Your task to perform on an android device: What is the recent news? Image 0: 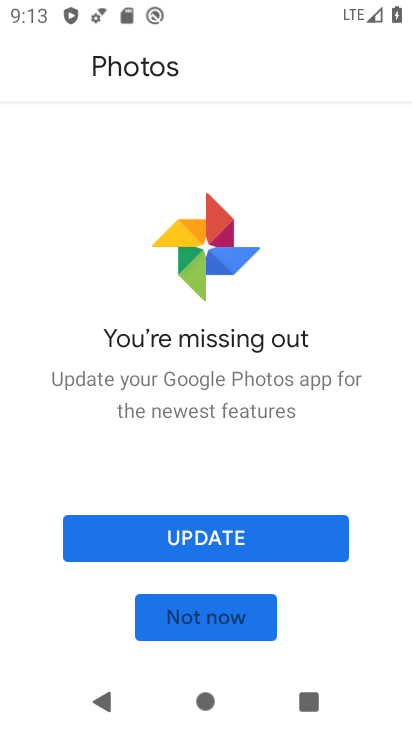
Step 0: press home button
Your task to perform on an android device: What is the recent news? Image 1: 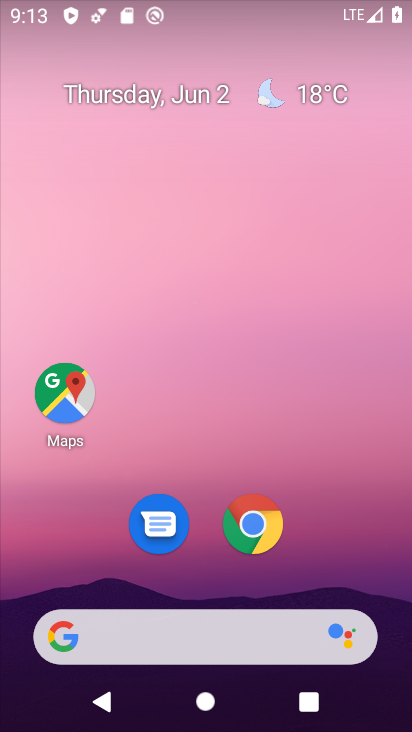
Step 1: click (219, 638)
Your task to perform on an android device: What is the recent news? Image 2: 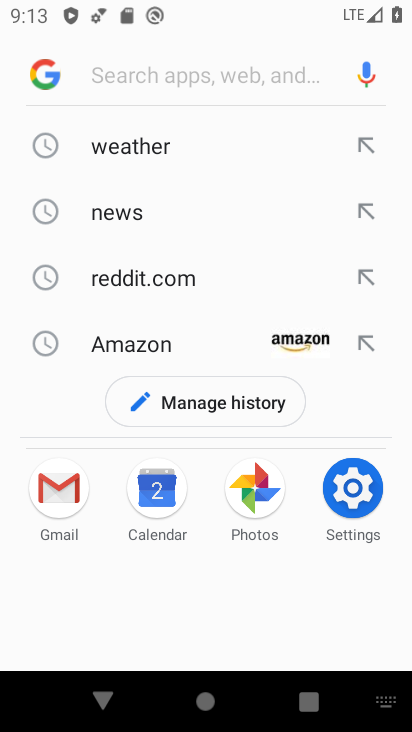
Step 2: click (92, 209)
Your task to perform on an android device: What is the recent news? Image 3: 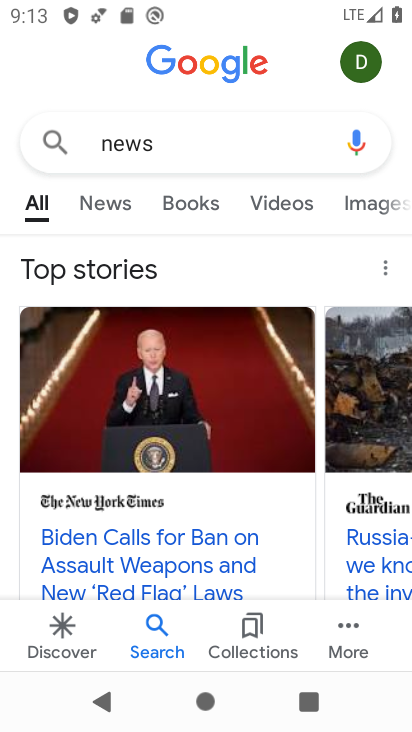
Step 3: click (119, 197)
Your task to perform on an android device: What is the recent news? Image 4: 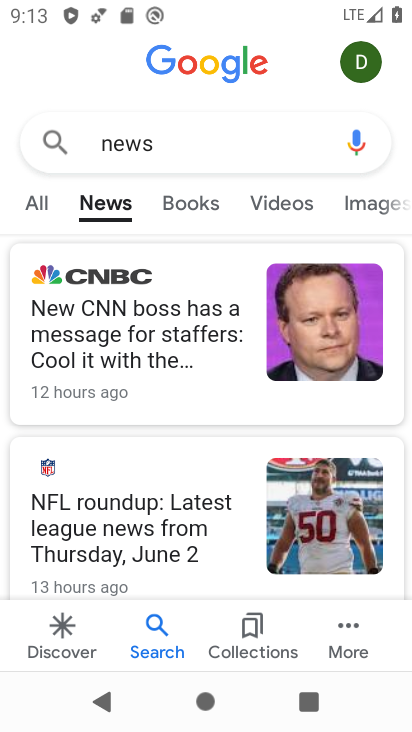
Step 4: task complete